Your task to perform on an android device: Open the calendar and show me this week's events? Image 0: 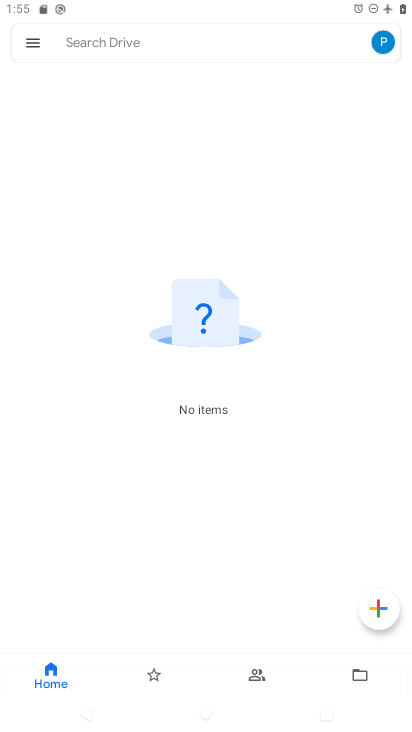
Step 0: press home button
Your task to perform on an android device: Open the calendar and show me this week's events? Image 1: 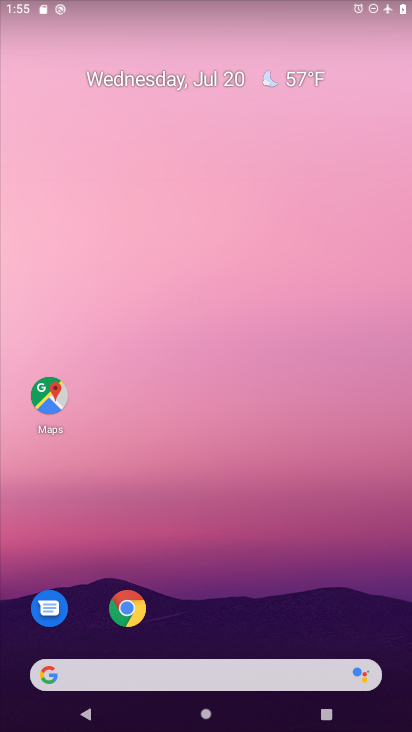
Step 1: drag from (250, 689) to (358, 82)
Your task to perform on an android device: Open the calendar and show me this week's events? Image 2: 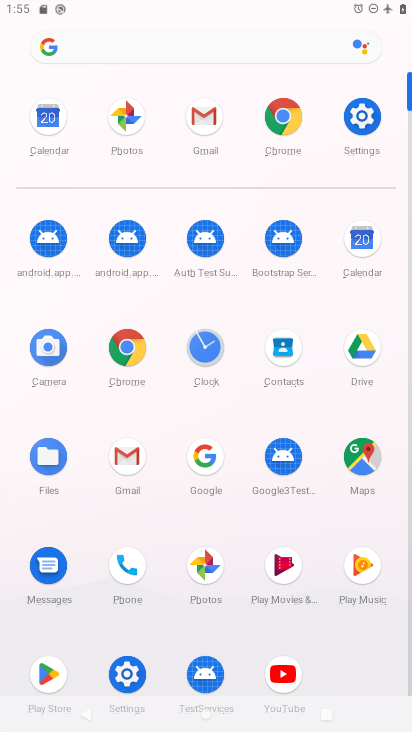
Step 2: click (362, 243)
Your task to perform on an android device: Open the calendar and show me this week's events? Image 3: 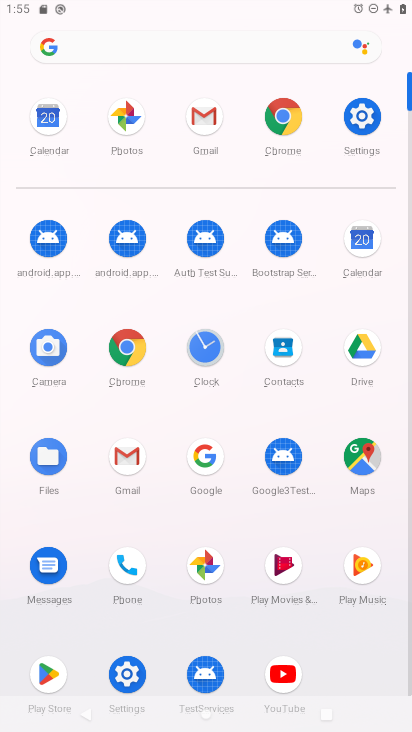
Step 3: click (362, 243)
Your task to perform on an android device: Open the calendar and show me this week's events? Image 4: 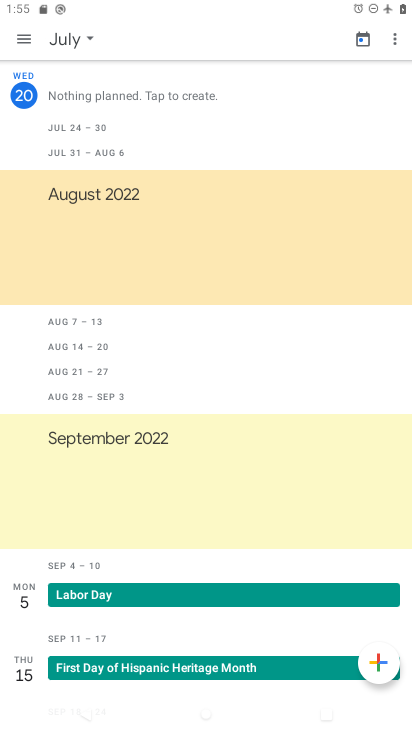
Step 4: click (70, 44)
Your task to perform on an android device: Open the calendar and show me this week's events? Image 5: 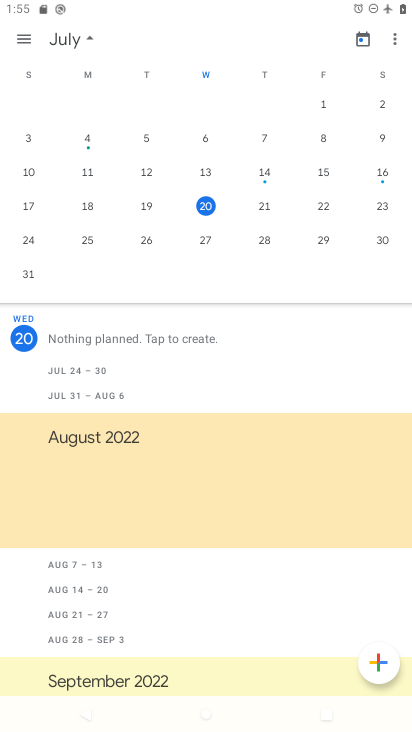
Step 5: task complete